Your task to perform on an android device: turn on javascript in the chrome app Image 0: 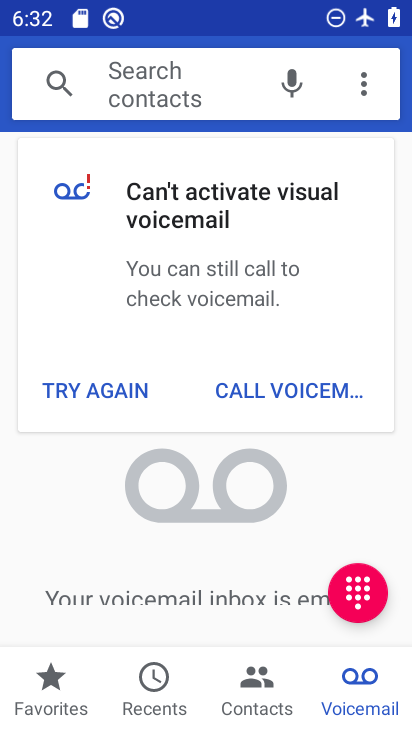
Step 0: press home button
Your task to perform on an android device: turn on javascript in the chrome app Image 1: 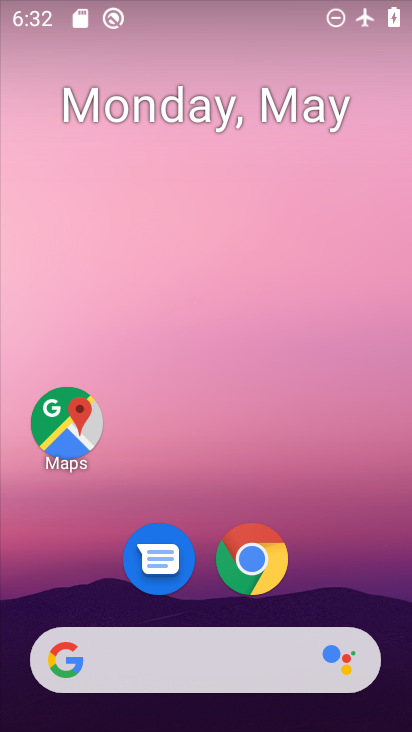
Step 1: click (259, 561)
Your task to perform on an android device: turn on javascript in the chrome app Image 2: 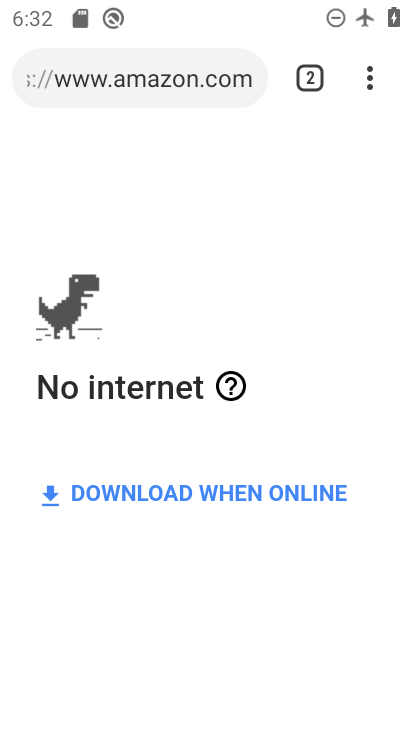
Step 2: click (364, 78)
Your task to perform on an android device: turn on javascript in the chrome app Image 3: 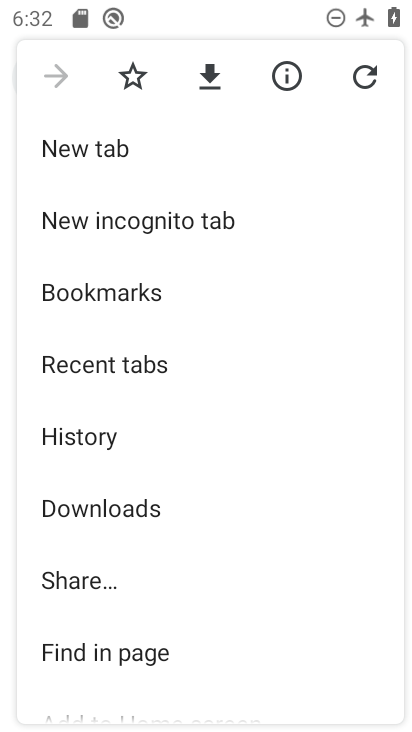
Step 3: drag from (285, 502) to (214, 144)
Your task to perform on an android device: turn on javascript in the chrome app Image 4: 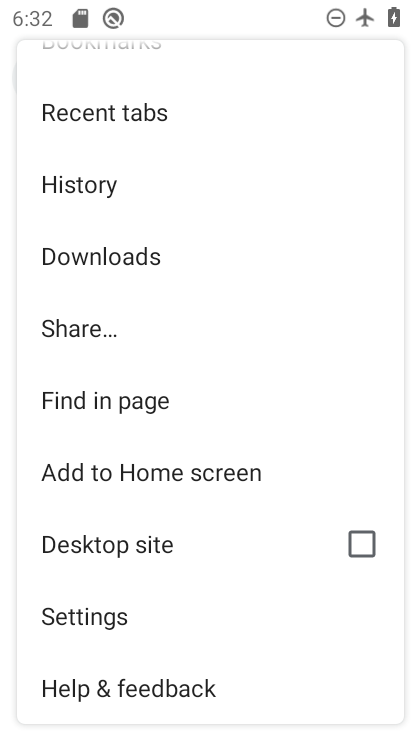
Step 4: click (112, 613)
Your task to perform on an android device: turn on javascript in the chrome app Image 5: 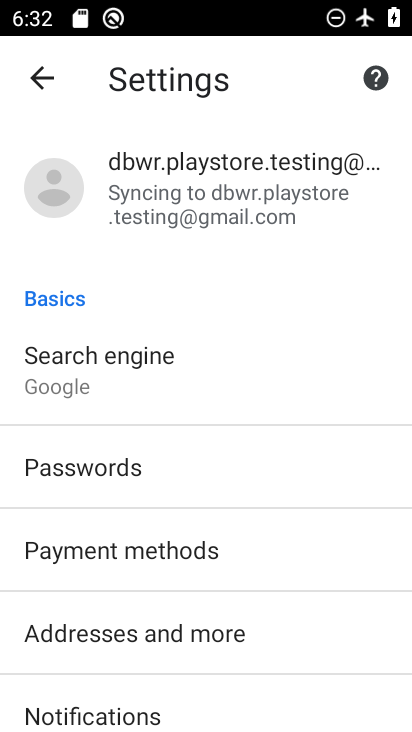
Step 5: drag from (246, 498) to (200, 204)
Your task to perform on an android device: turn on javascript in the chrome app Image 6: 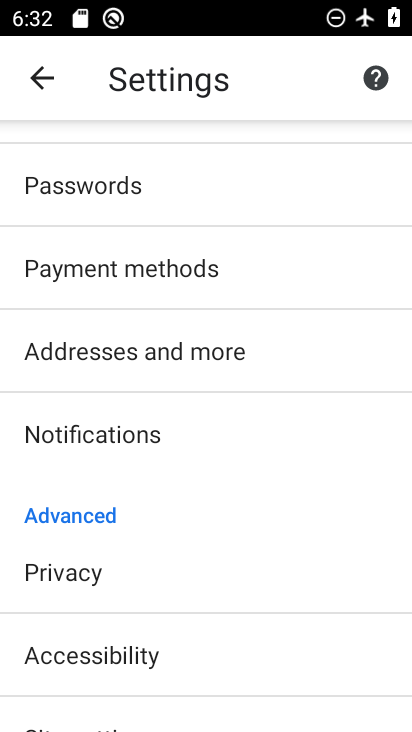
Step 6: drag from (257, 541) to (237, 288)
Your task to perform on an android device: turn on javascript in the chrome app Image 7: 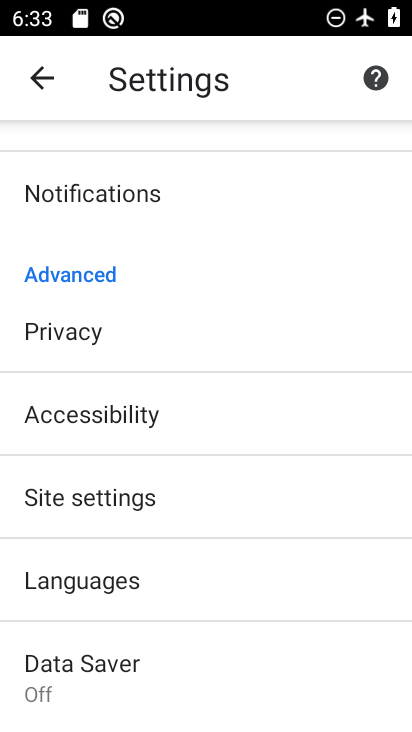
Step 7: drag from (195, 596) to (150, 333)
Your task to perform on an android device: turn on javascript in the chrome app Image 8: 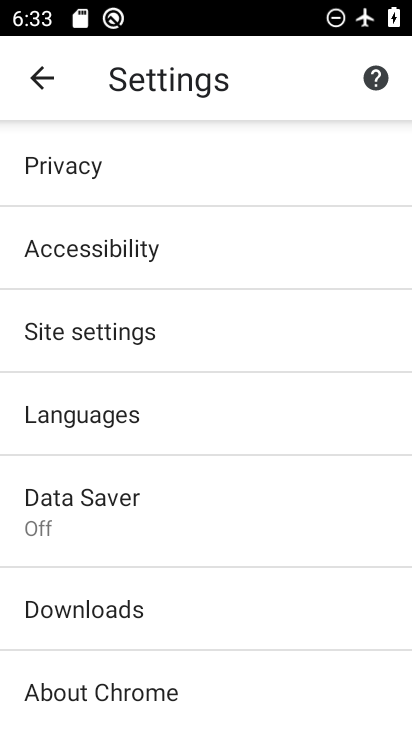
Step 8: click (55, 347)
Your task to perform on an android device: turn on javascript in the chrome app Image 9: 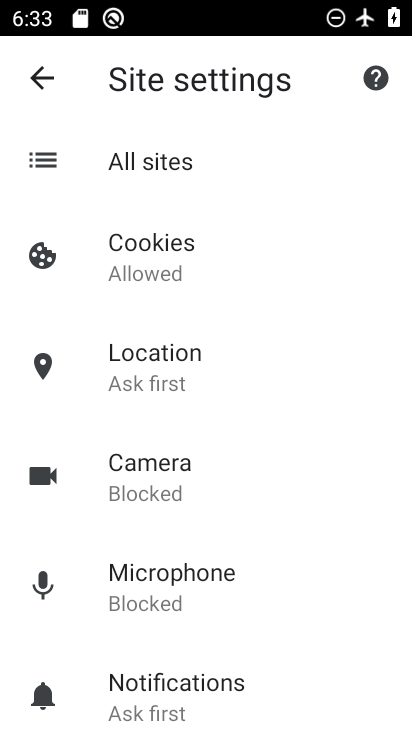
Step 9: drag from (266, 510) to (152, 174)
Your task to perform on an android device: turn on javascript in the chrome app Image 10: 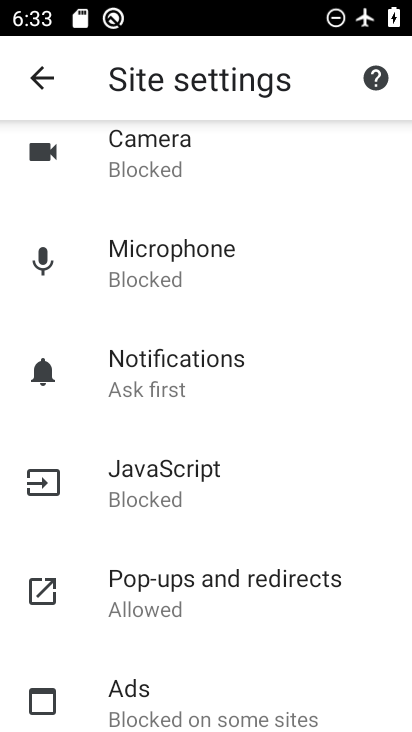
Step 10: click (176, 474)
Your task to perform on an android device: turn on javascript in the chrome app Image 11: 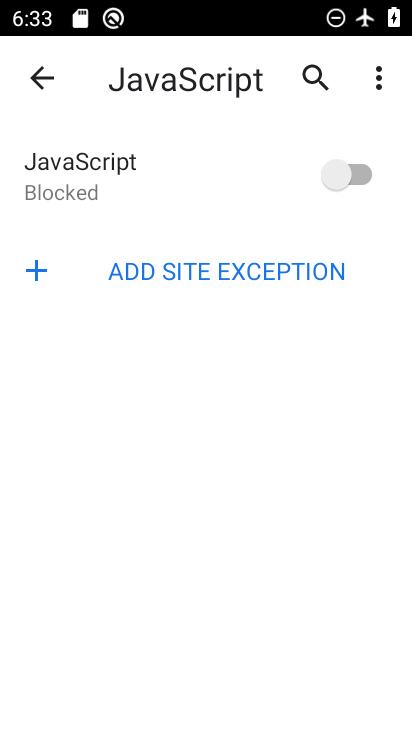
Step 11: click (332, 174)
Your task to perform on an android device: turn on javascript in the chrome app Image 12: 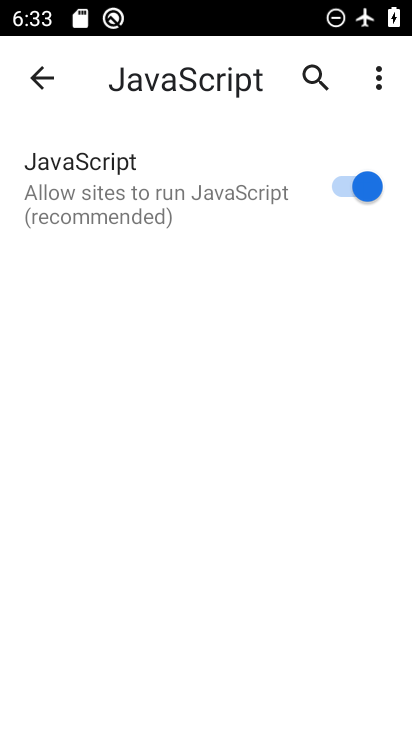
Step 12: task complete